Your task to perform on an android device: Open location settings Image 0: 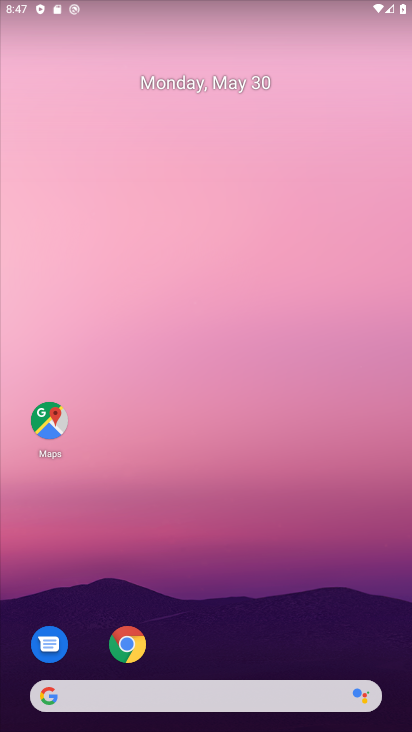
Step 0: drag from (204, 574) to (283, 102)
Your task to perform on an android device: Open location settings Image 1: 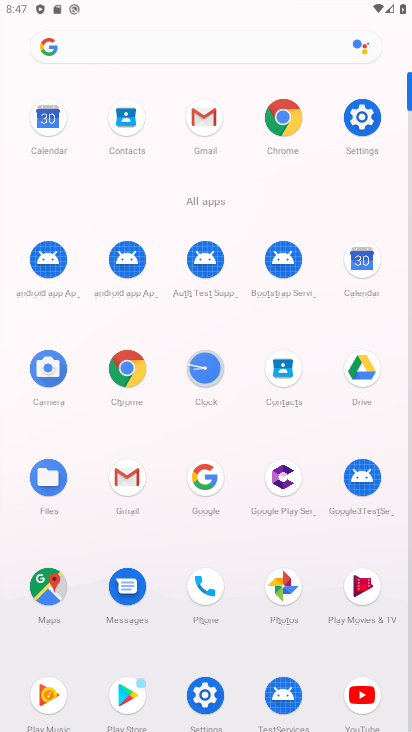
Step 1: click (366, 121)
Your task to perform on an android device: Open location settings Image 2: 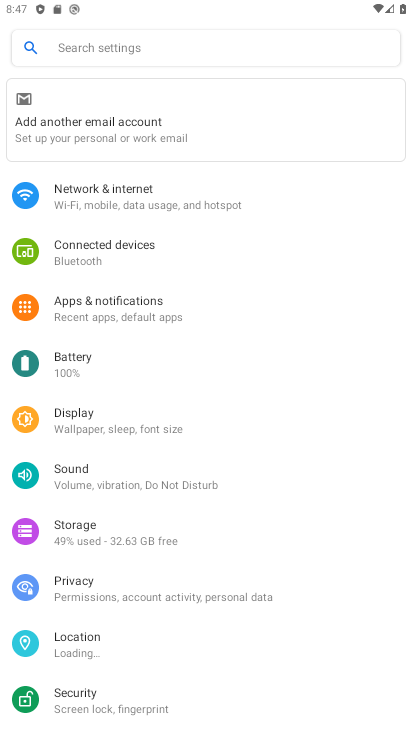
Step 2: click (90, 644)
Your task to perform on an android device: Open location settings Image 3: 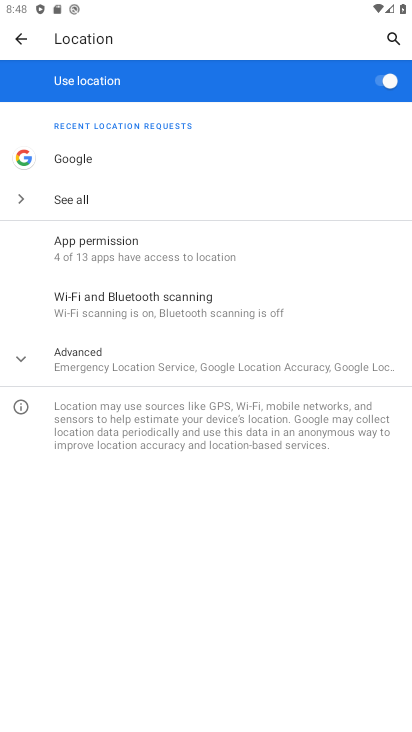
Step 3: task complete